Your task to perform on an android device: Open sound settings Image 0: 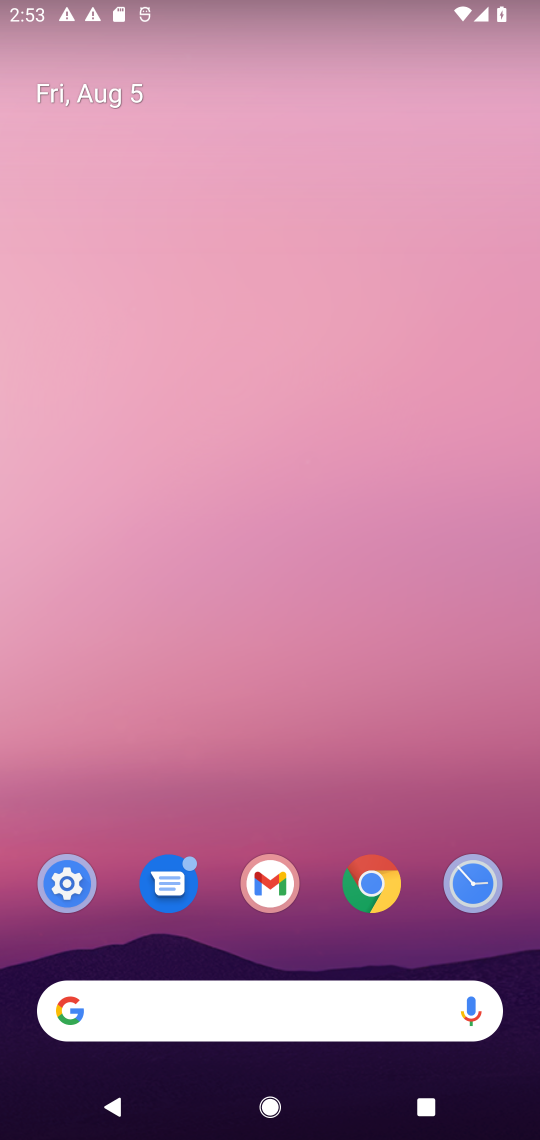
Step 0: press home button
Your task to perform on an android device: Open sound settings Image 1: 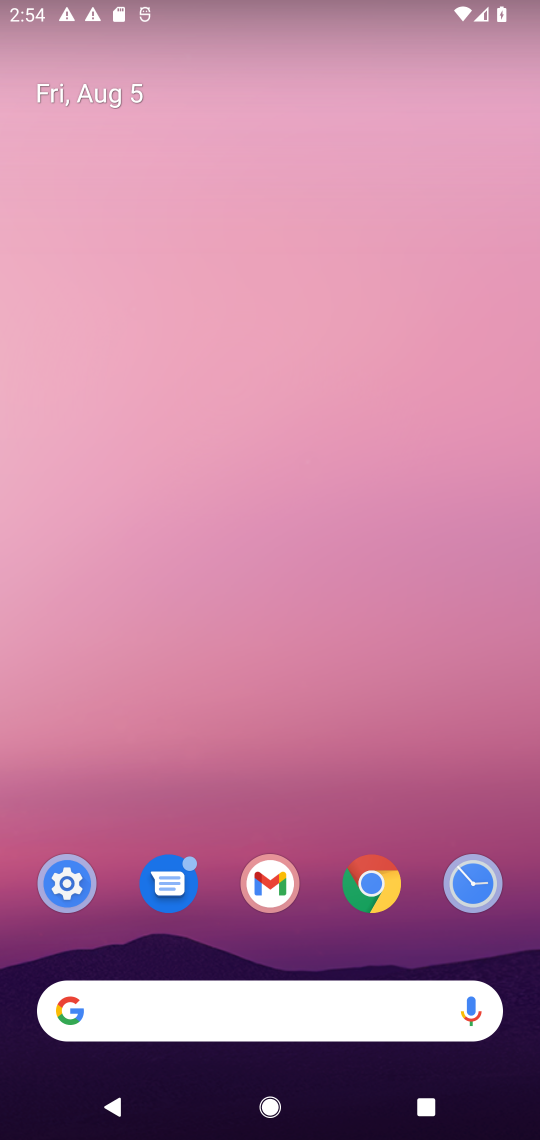
Step 1: drag from (315, 952) to (324, 0)
Your task to perform on an android device: Open sound settings Image 2: 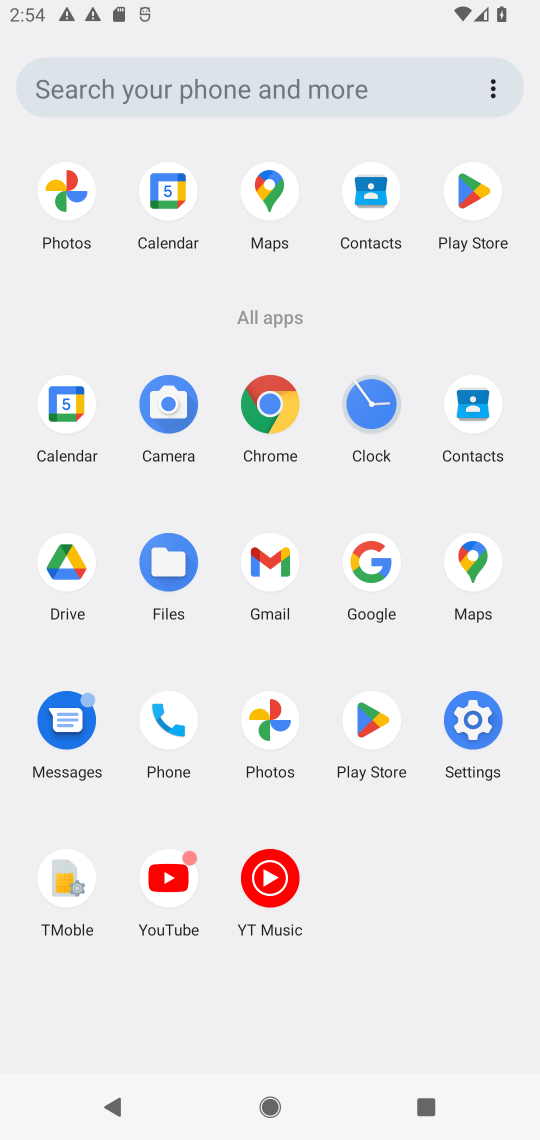
Step 2: click (472, 706)
Your task to perform on an android device: Open sound settings Image 3: 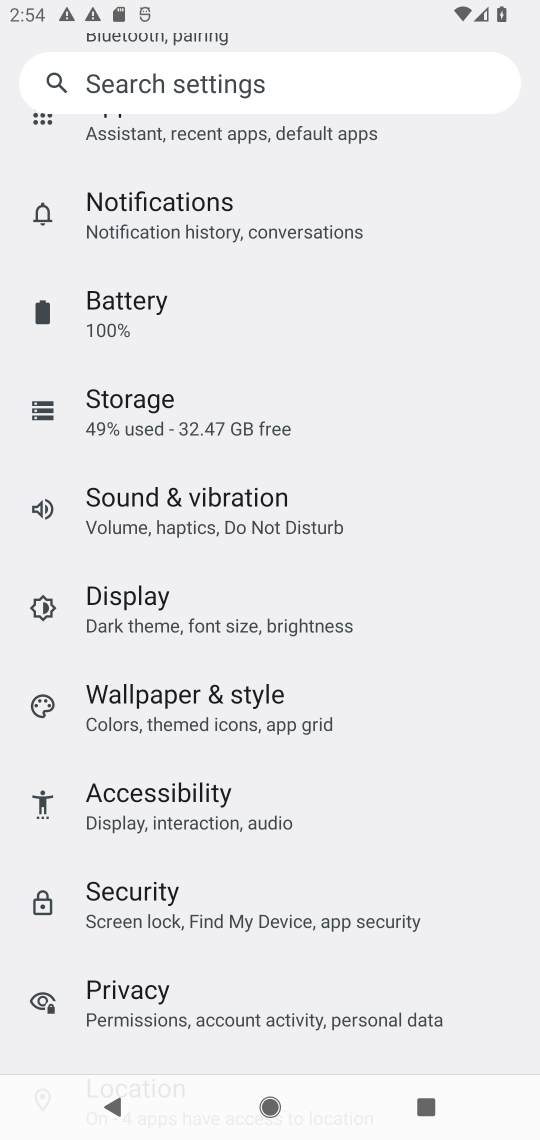
Step 3: click (245, 501)
Your task to perform on an android device: Open sound settings Image 4: 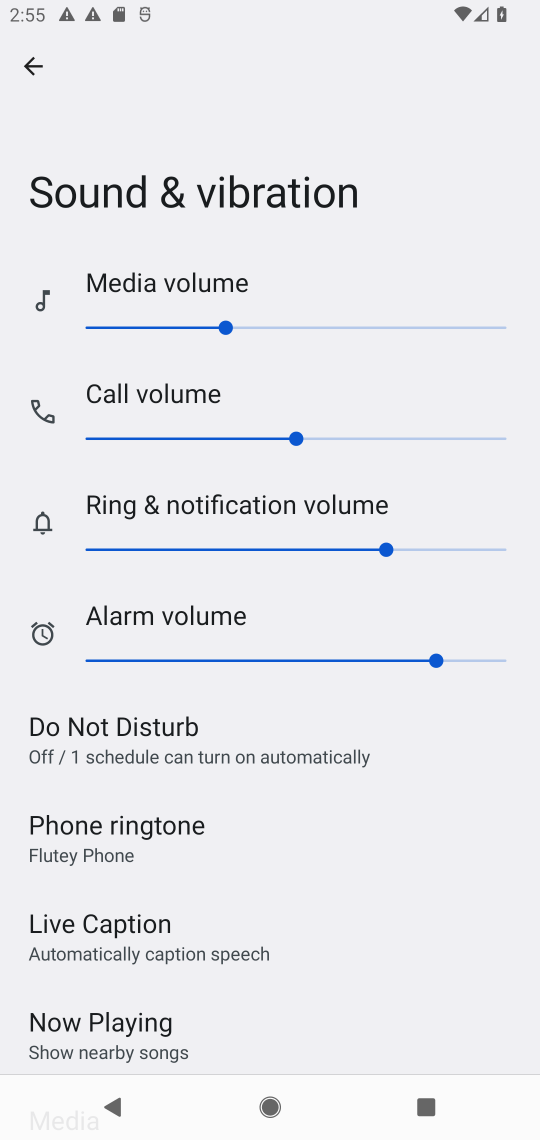
Step 4: task complete